Your task to perform on an android device: create a new album in the google photos Image 0: 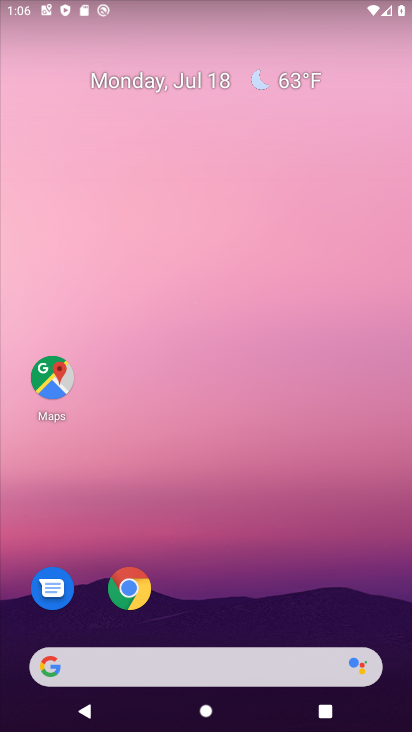
Step 0: drag from (236, 556) to (141, 72)
Your task to perform on an android device: create a new album in the google photos Image 1: 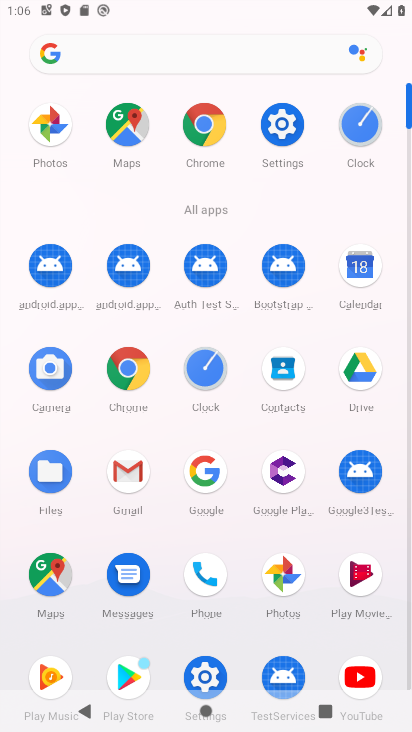
Step 1: click (57, 118)
Your task to perform on an android device: create a new album in the google photos Image 2: 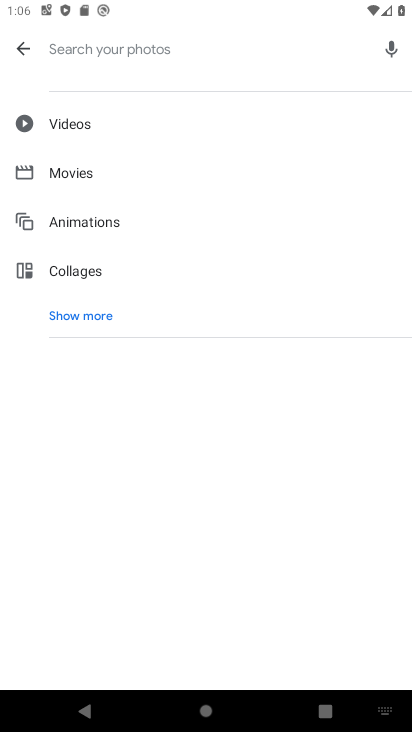
Step 2: click (17, 42)
Your task to perform on an android device: create a new album in the google photos Image 3: 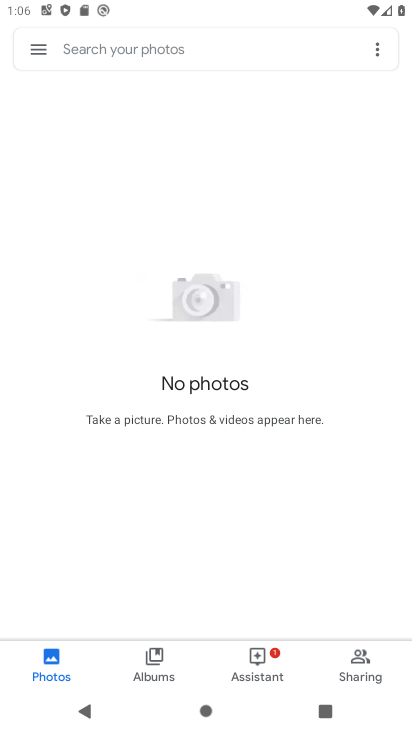
Step 3: click (373, 47)
Your task to perform on an android device: create a new album in the google photos Image 4: 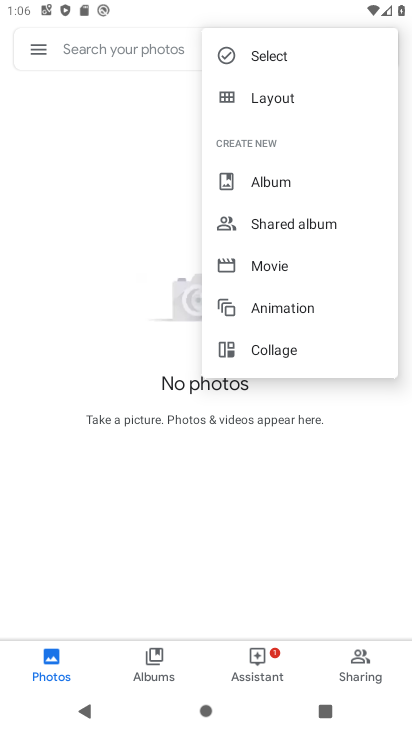
Step 4: click (276, 178)
Your task to perform on an android device: create a new album in the google photos Image 5: 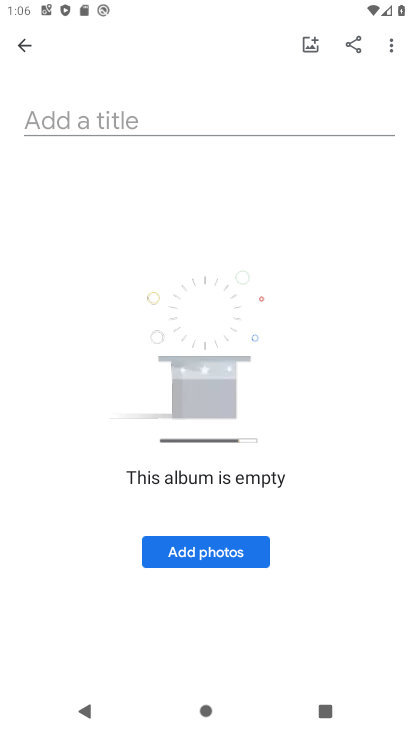
Step 5: click (105, 110)
Your task to perform on an android device: create a new album in the google photos Image 6: 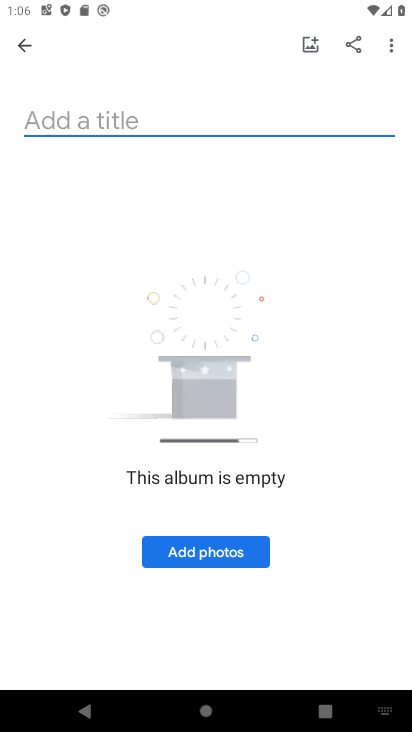
Step 6: type " jnkm"
Your task to perform on an android device: create a new album in the google photos Image 7: 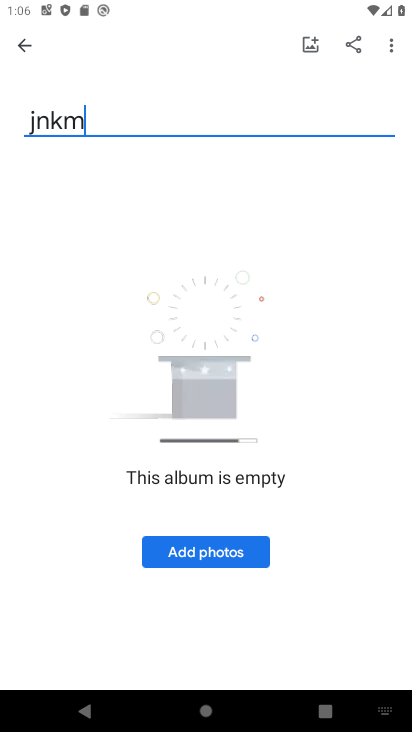
Step 7: click (318, 39)
Your task to perform on an android device: create a new album in the google photos Image 8: 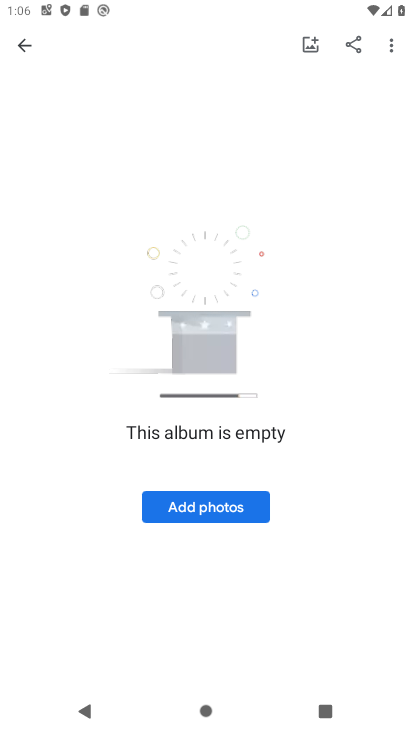
Step 8: task complete